Your task to perform on an android device: all mails in gmail Image 0: 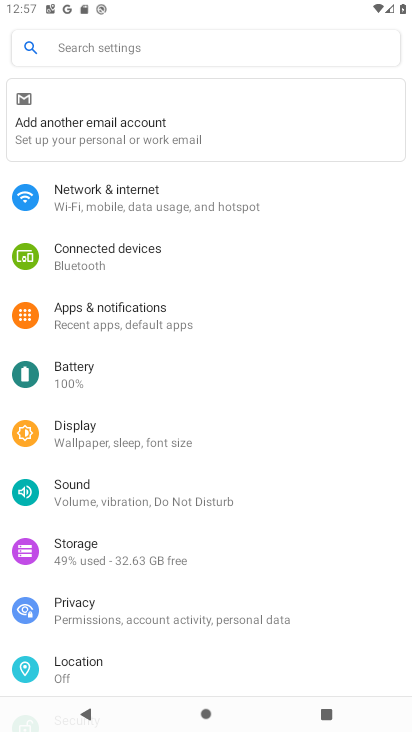
Step 0: press home button
Your task to perform on an android device: all mails in gmail Image 1: 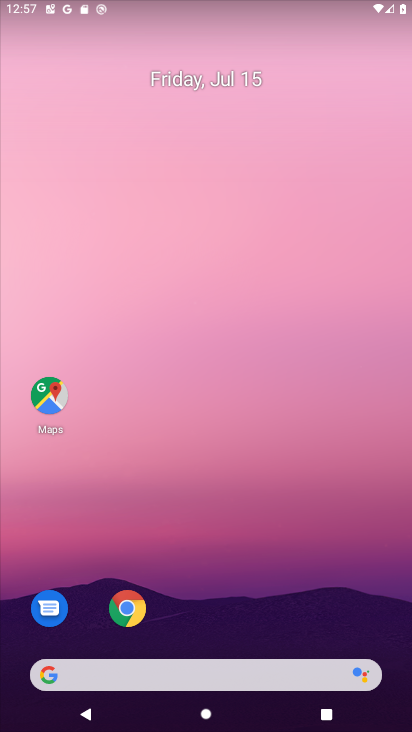
Step 1: drag from (207, 568) to (171, 145)
Your task to perform on an android device: all mails in gmail Image 2: 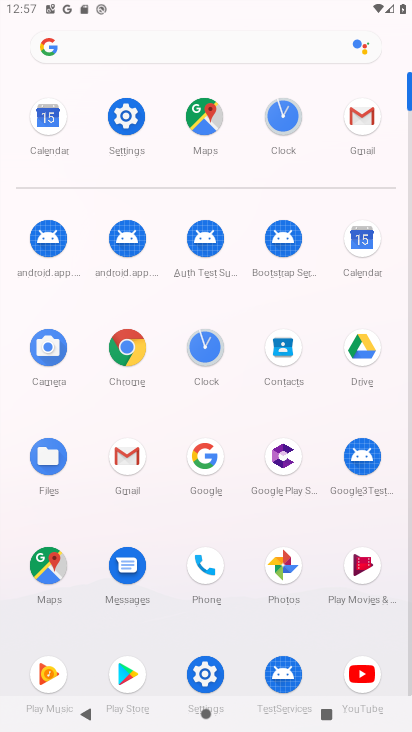
Step 2: click (127, 458)
Your task to perform on an android device: all mails in gmail Image 3: 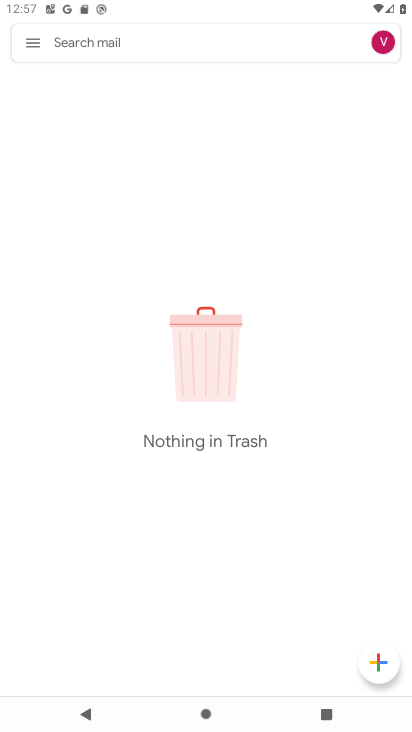
Step 3: click (28, 40)
Your task to perform on an android device: all mails in gmail Image 4: 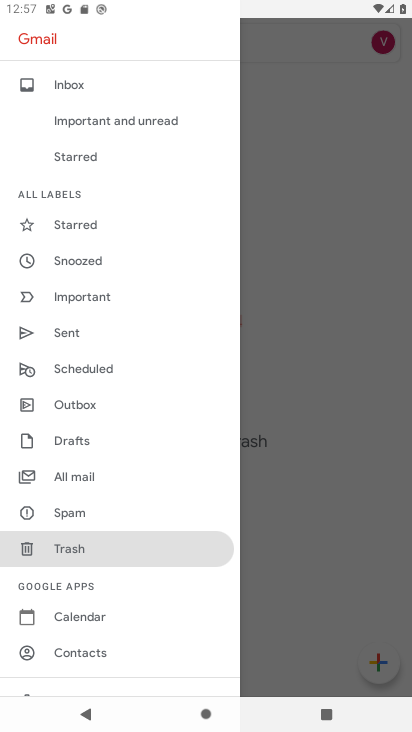
Step 4: click (78, 472)
Your task to perform on an android device: all mails in gmail Image 5: 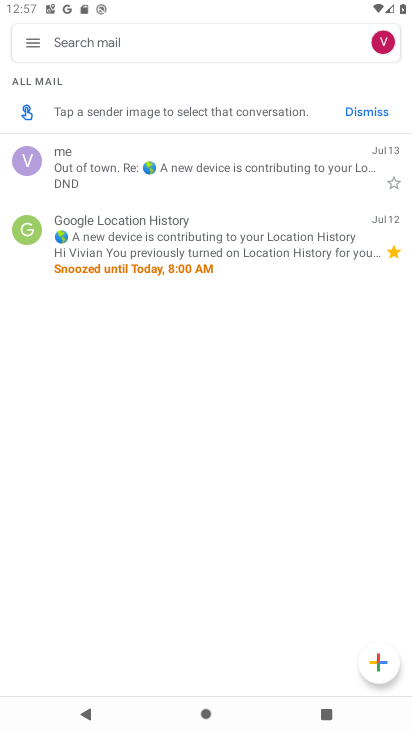
Step 5: task complete